Your task to perform on an android device: See recent photos Image 0: 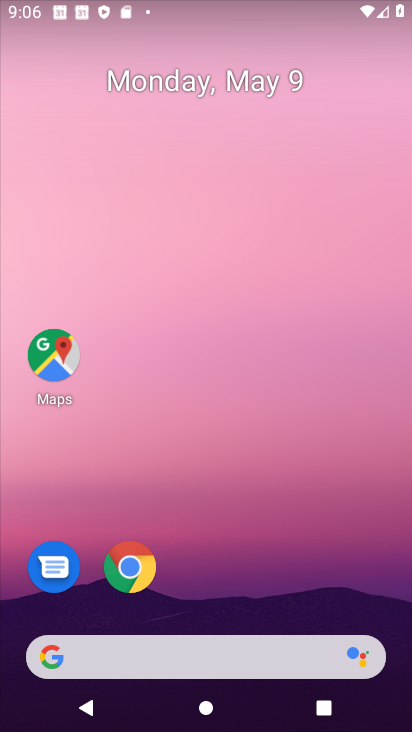
Step 0: drag from (191, 653) to (119, 112)
Your task to perform on an android device: See recent photos Image 1: 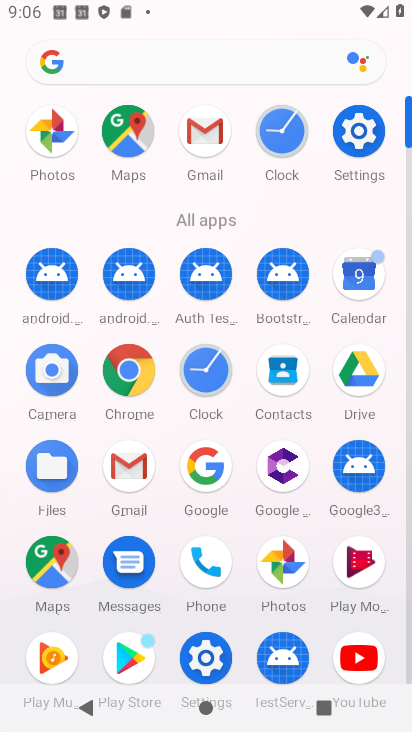
Step 1: click (294, 558)
Your task to perform on an android device: See recent photos Image 2: 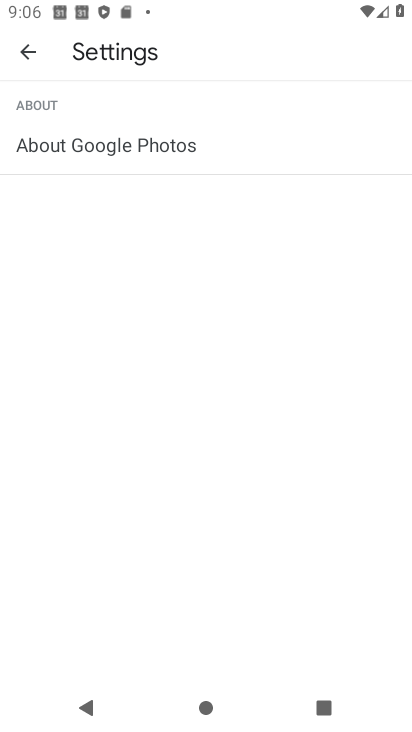
Step 2: click (28, 53)
Your task to perform on an android device: See recent photos Image 3: 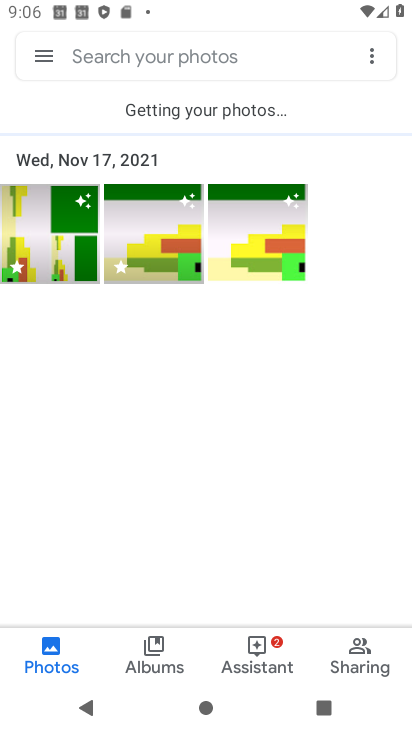
Step 3: task complete